Your task to perform on an android device: snooze an email in the gmail app Image 0: 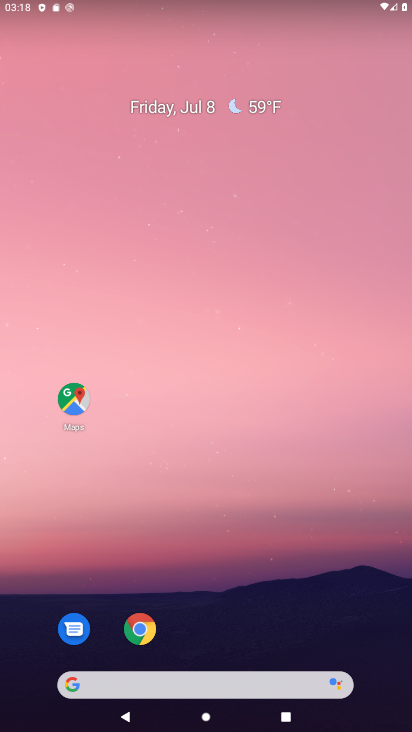
Step 0: press home button
Your task to perform on an android device: snooze an email in the gmail app Image 1: 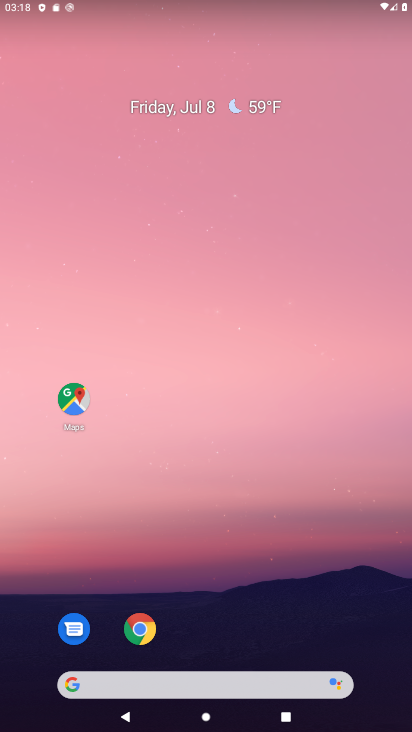
Step 1: drag from (234, 643) to (174, 12)
Your task to perform on an android device: snooze an email in the gmail app Image 2: 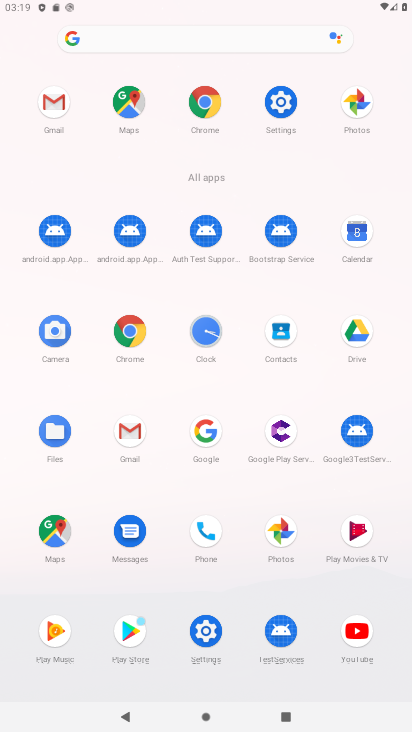
Step 2: click (131, 425)
Your task to perform on an android device: snooze an email in the gmail app Image 3: 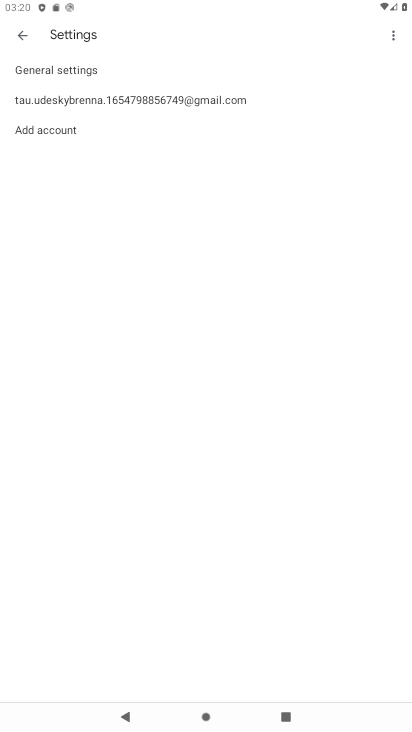
Step 3: click (18, 40)
Your task to perform on an android device: snooze an email in the gmail app Image 4: 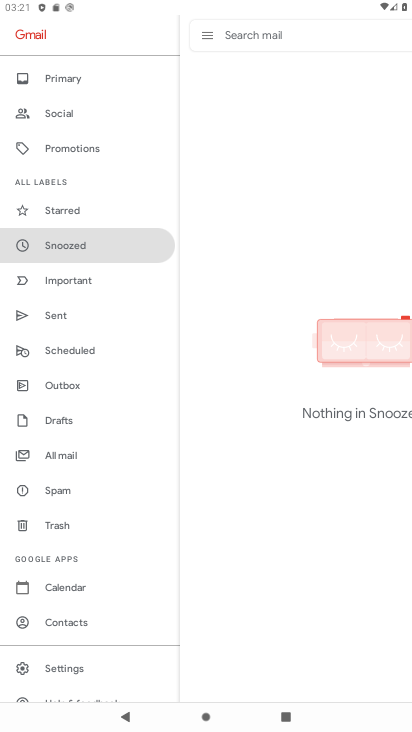
Step 4: task complete